Your task to perform on an android device: What's the weather? Image 0: 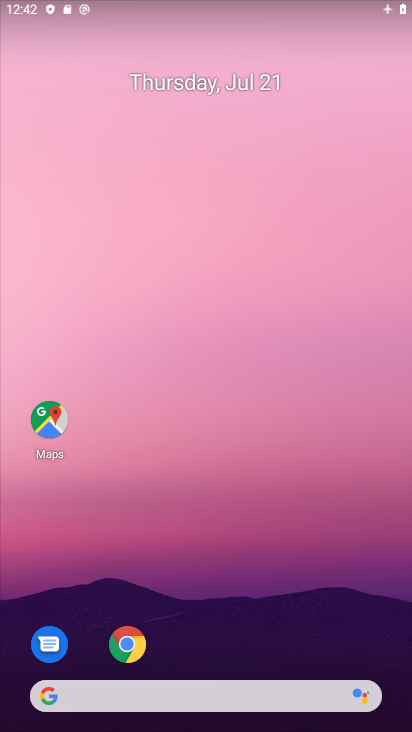
Step 0: drag from (186, 649) to (263, 1)
Your task to perform on an android device: What's the weather? Image 1: 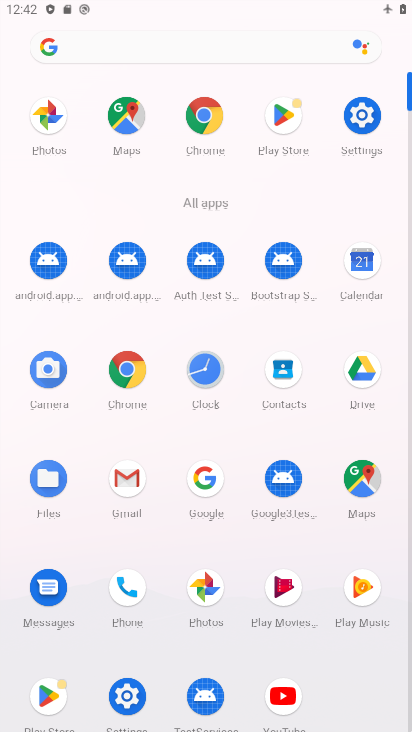
Step 1: click (126, 367)
Your task to perform on an android device: What's the weather? Image 2: 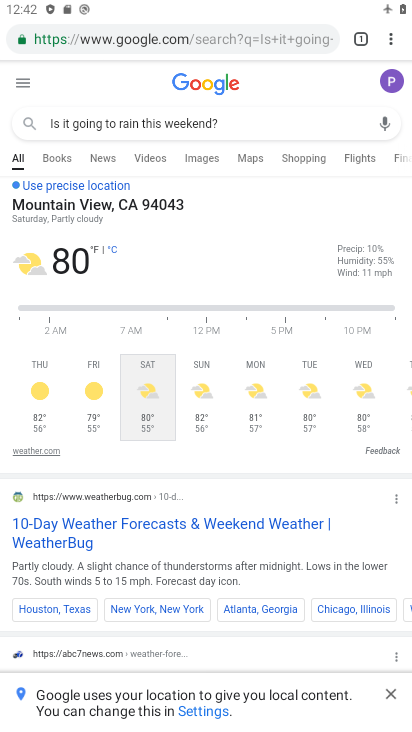
Step 2: click (215, 41)
Your task to perform on an android device: What's the weather? Image 3: 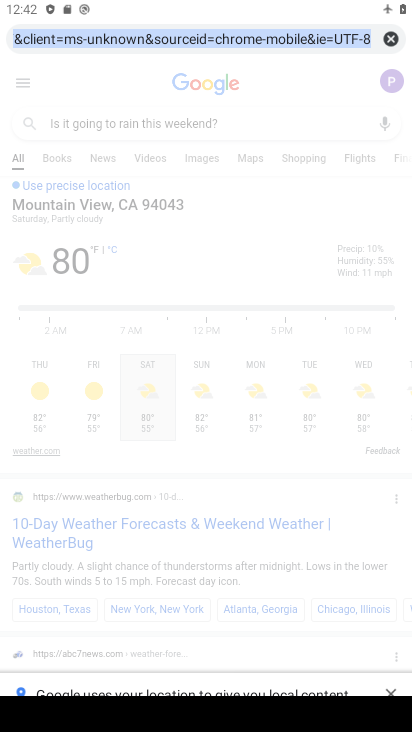
Step 3: click (392, 37)
Your task to perform on an android device: What's the weather? Image 4: 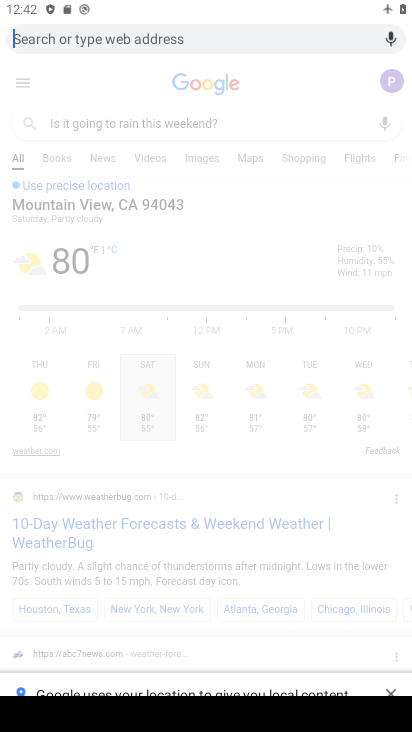
Step 4: type "What's the weather?"
Your task to perform on an android device: What's the weather? Image 5: 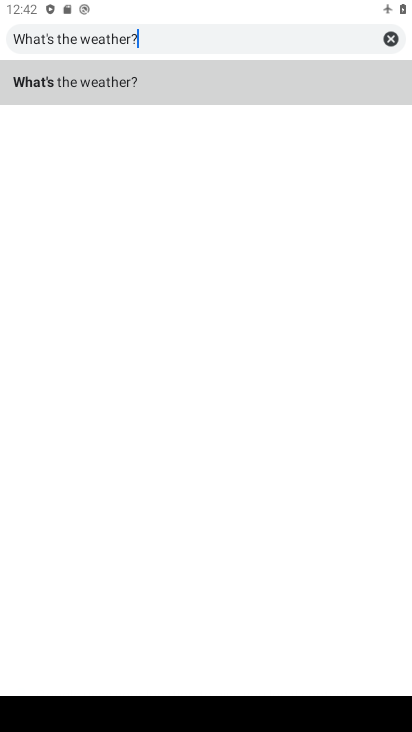
Step 5: click (72, 82)
Your task to perform on an android device: What's the weather? Image 6: 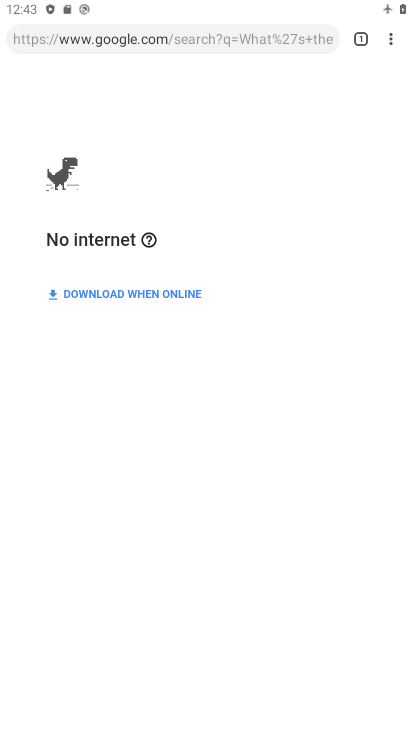
Step 6: drag from (313, 2) to (279, 509)
Your task to perform on an android device: What's the weather? Image 7: 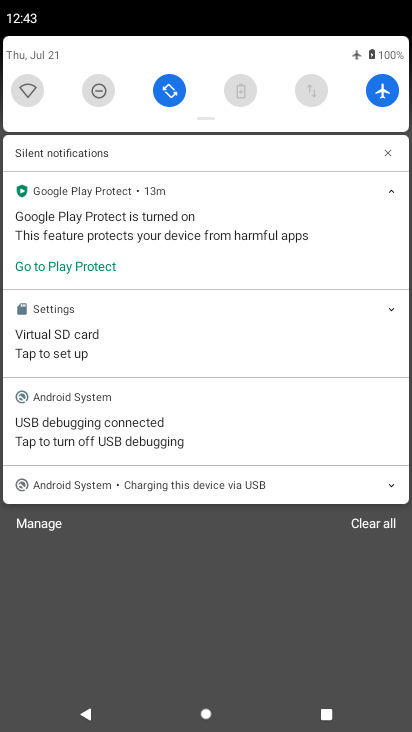
Step 7: click (383, 89)
Your task to perform on an android device: What's the weather? Image 8: 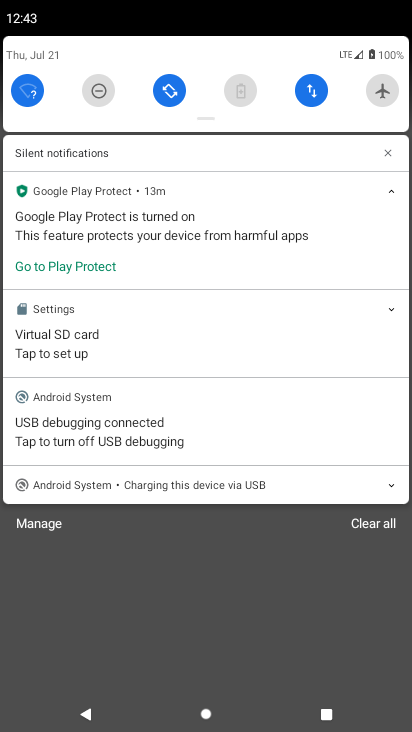
Step 8: task complete